Your task to perform on an android device: Go to sound settings Image 0: 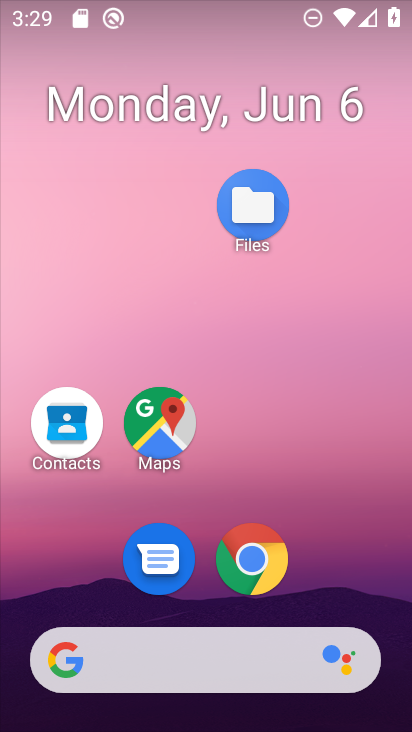
Step 0: drag from (201, 582) to (264, 158)
Your task to perform on an android device: Go to sound settings Image 1: 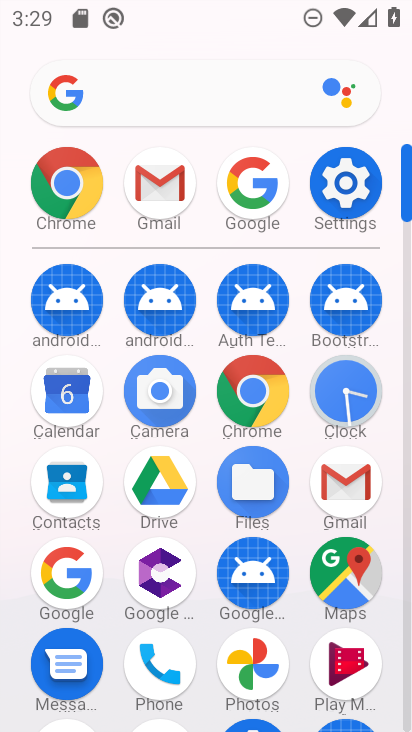
Step 1: click (346, 198)
Your task to perform on an android device: Go to sound settings Image 2: 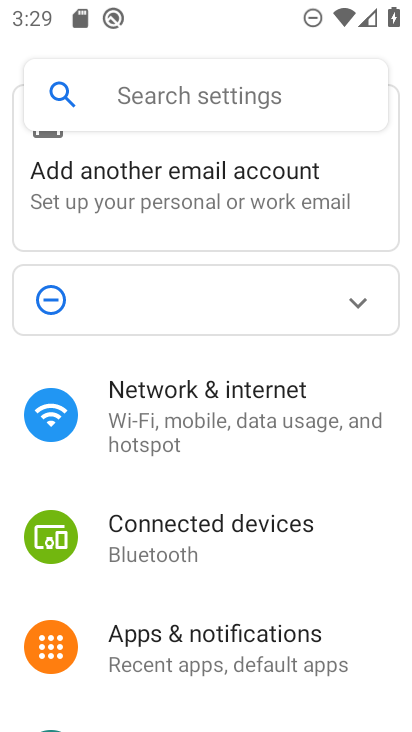
Step 2: drag from (250, 610) to (318, 364)
Your task to perform on an android device: Go to sound settings Image 3: 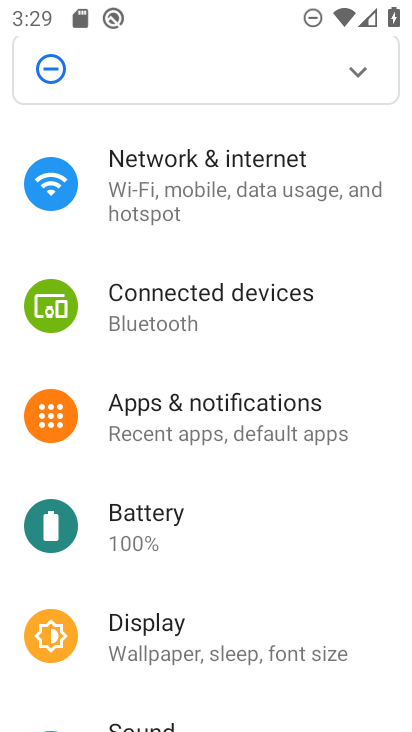
Step 3: drag from (280, 552) to (294, 283)
Your task to perform on an android device: Go to sound settings Image 4: 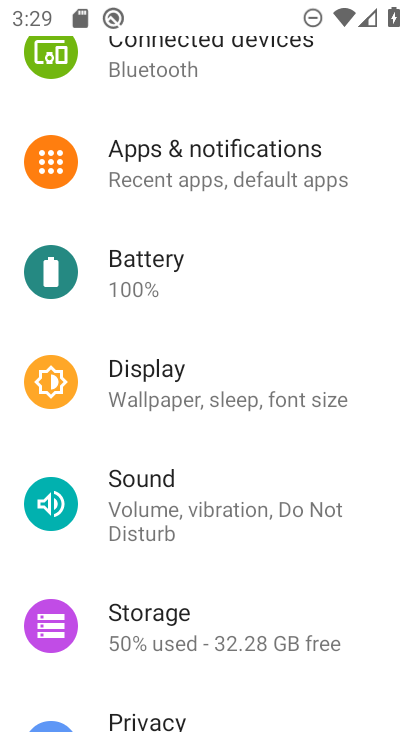
Step 4: click (166, 518)
Your task to perform on an android device: Go to sound settings Image 5: 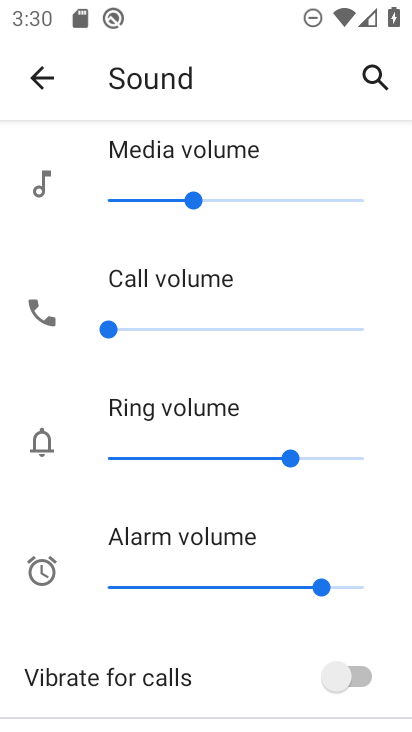
Step 5: task complete